Your task to perform on an android device: change text size in settings app Image 0: 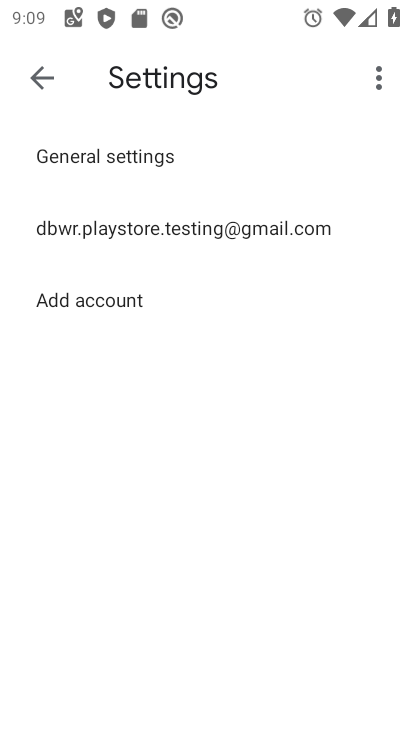
Step 0: press home button
Your task to perform on an android device: change text size in settings app Image 1: 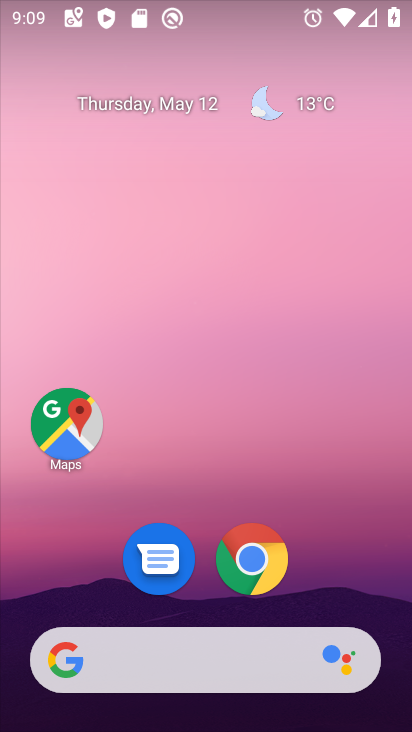
Step 1: drag from (196, 626) to (295, 169)
Your task to perform on an android device: change text size in settings app Image 2: 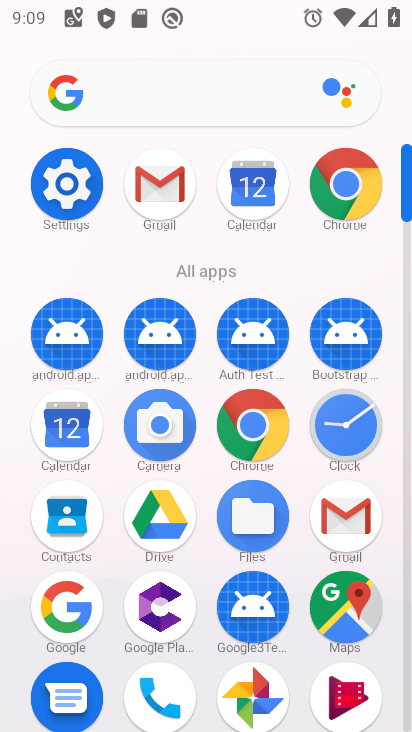
Step 2: drag from (176, 651) to (253, 348)
Your task to perform on an android device: change text size in settings app Image 3: 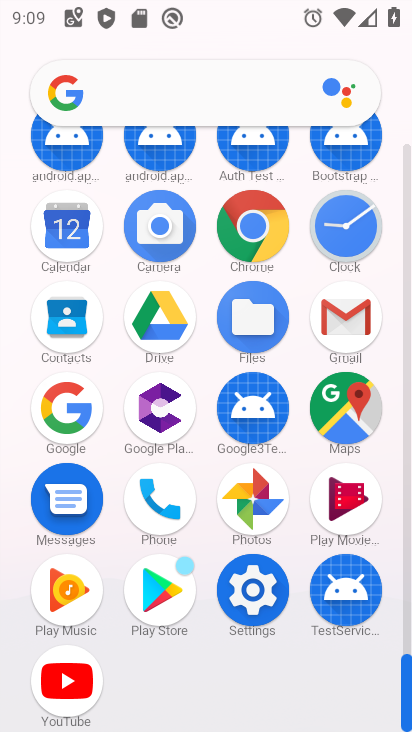
Step 3: click (257, 592)
Your task to perform on an android device: change text size in settings app Image 4: 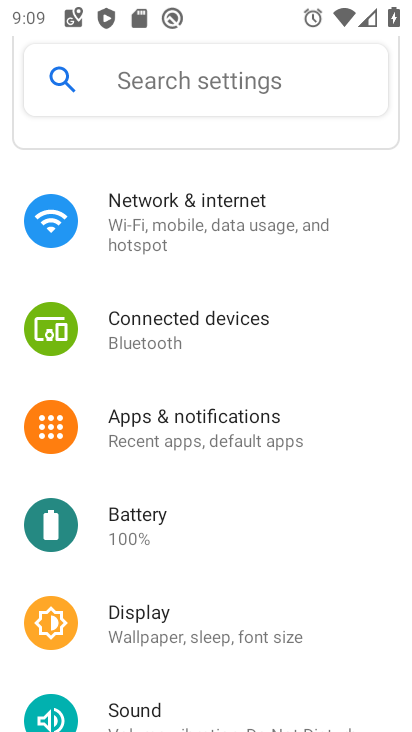
Step 4: click (204, 633)
Your task to perform on an android device: change text size in settings app Image 5: 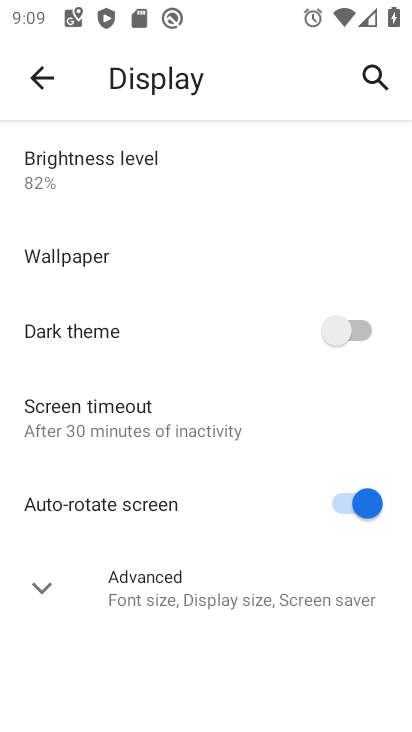
Step 5: click (207, 604)
Your task to perform on an android device: change text size in settings app Image 6: 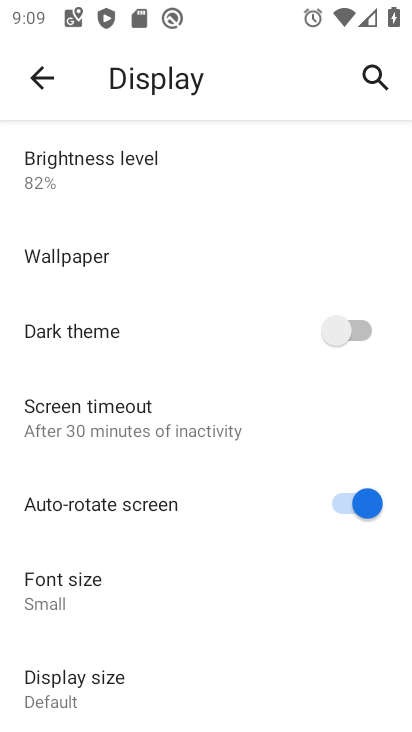
Step 6: click (190, 601)
Your task to perform on an android device: change text size in settings app Image 7: 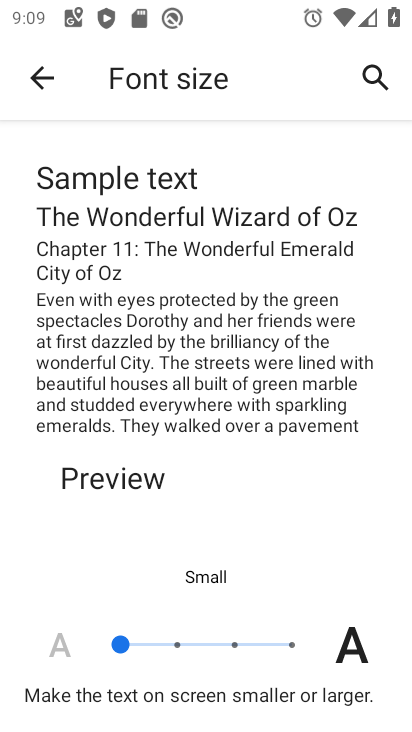
Step 7: click (179, 642)
Your task to perform on an android device: change text size in settings app Image 8: 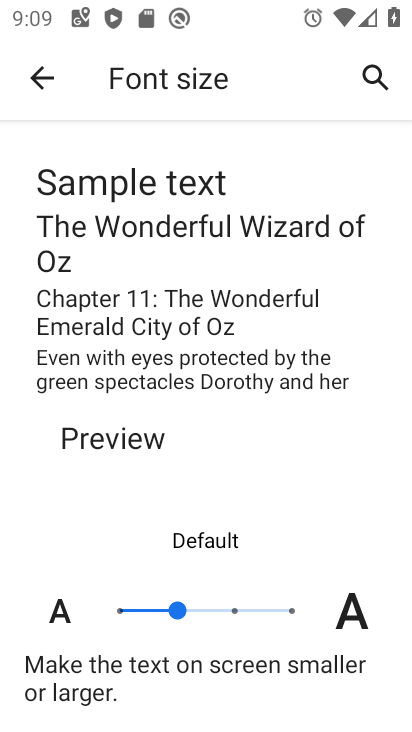
Step 8: task complete